Your task to perform on an android device: set the stopwatch Image 0: 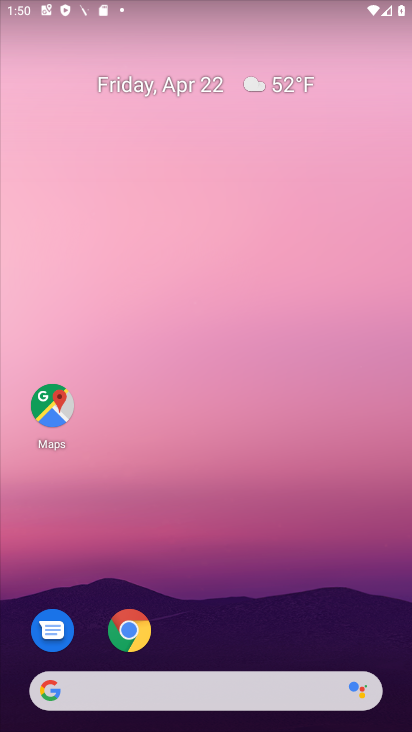
Step 0: drag from (286, 226) to (270, 168)
Your task to perform on an android device: set the stopwatch Image 1: 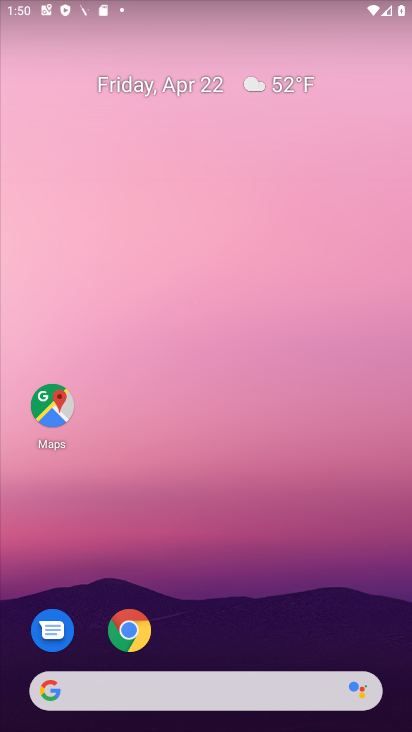
Step 1: drag from (368, 641) to (373, 334)
Your task to perform on an android device: set the stopwatch Image 2: 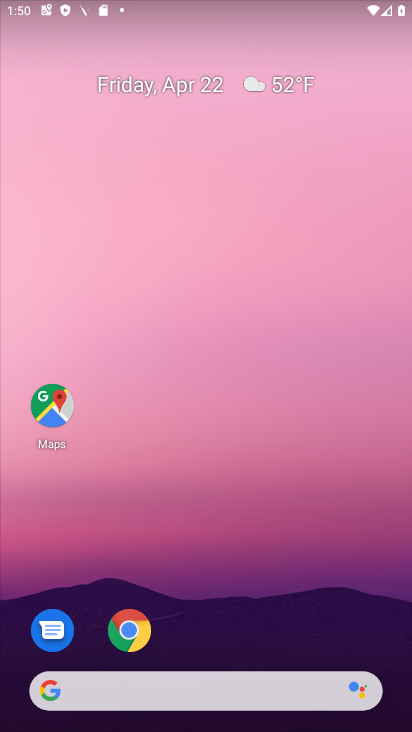
Step 2: drag from (358, 620) to (296, 89)
Your task to perform on an android device: set the stopwatch Image 3: 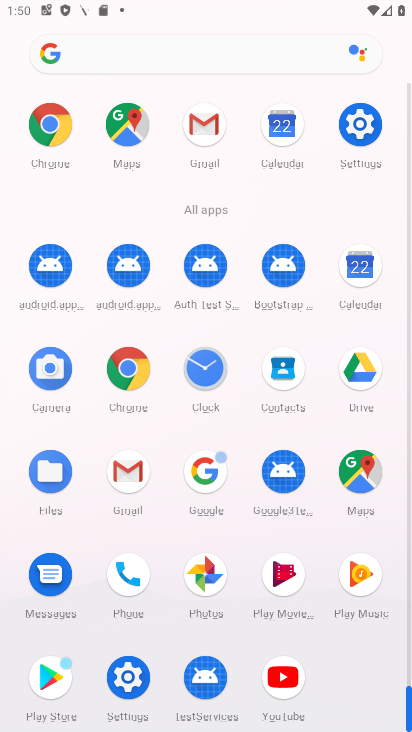
Step 3: click (213, 357)
Your task to perform on an android device: set the stopwatch Image 4: 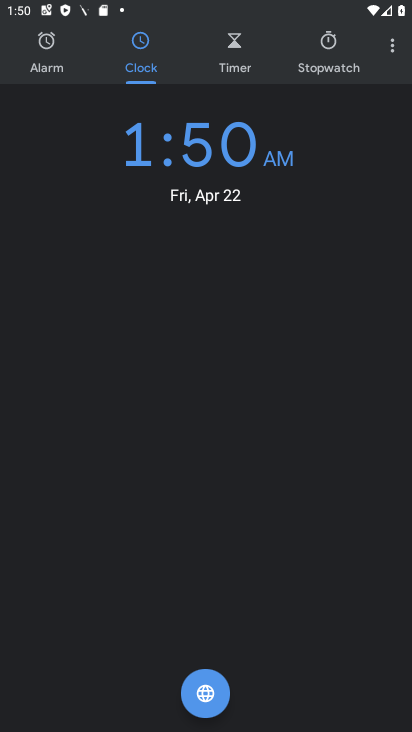
Step 4: click (322, 42)
Your task to perform on an android device: set the stopwatch Image 5: 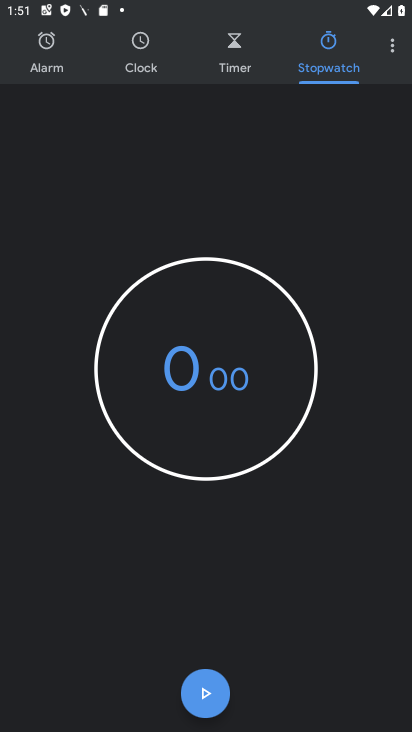
Step 5: click (204, 696)
Your task to perform on an android device: set the stopwatch Image 6: 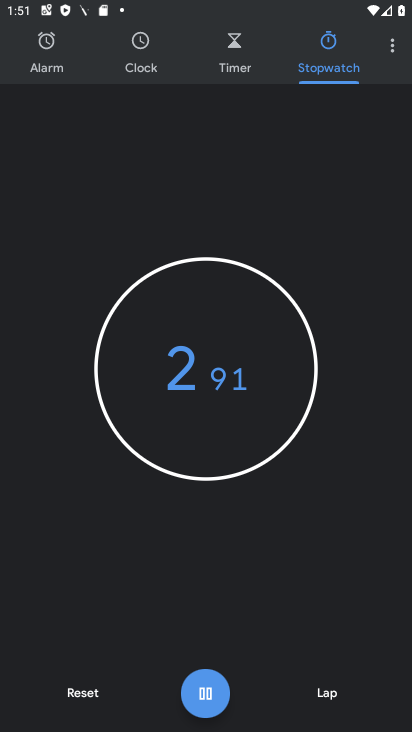
Step 6: task complete